Your task to perform on an android device: Search for vegetarian restaurants on Maps Image 0: 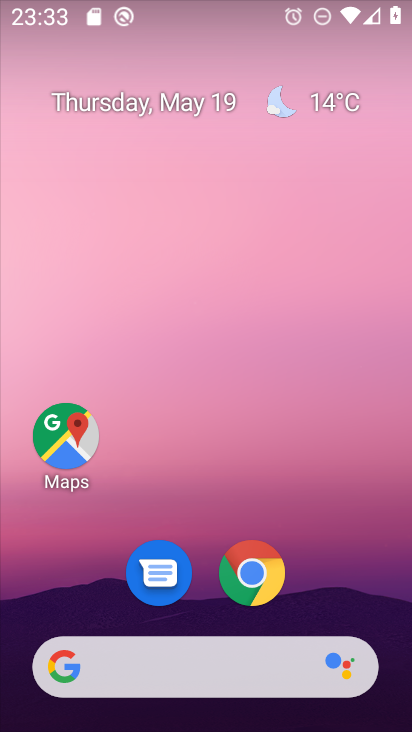
Step 0: drag from (348, 554) to (299, 111)
Your task to perform on an android device: Search for vegetarian restaurants on Maps Image 1: 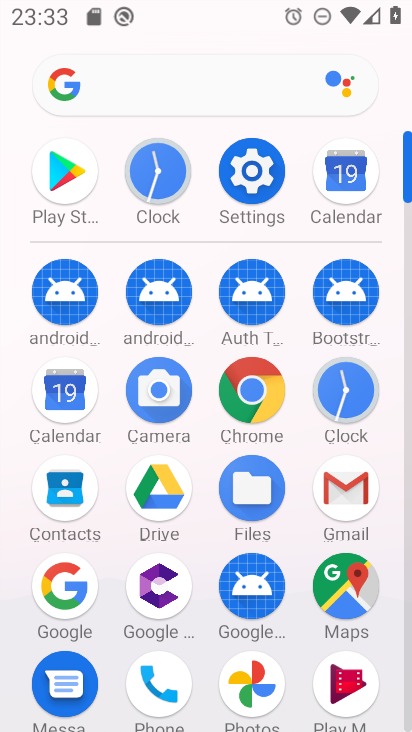
Step 1: drag from (283, 630) to (278, 190)
Your task to perform on an android device: Search for vegetarian restaurants on Maps Image 2: 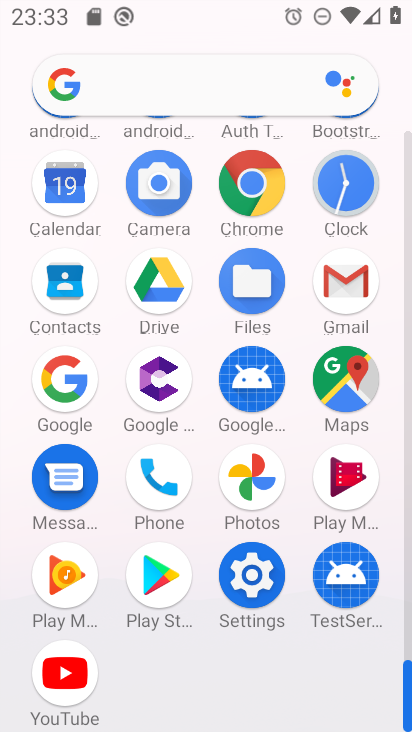
Step 2: click (356, 393)
Your task to perform on an android device: Search for vegetarian restaurants on Maps Image 3: 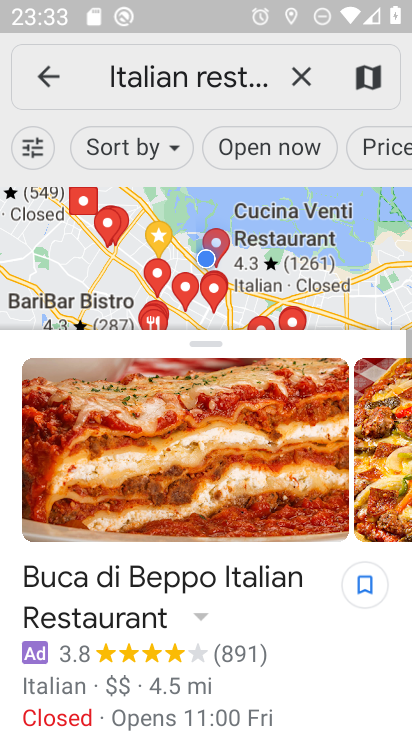
Step 3: click (217, 82)
Your task to perform on an android device: Search for vegetarian restaurants on Maps Image 4: 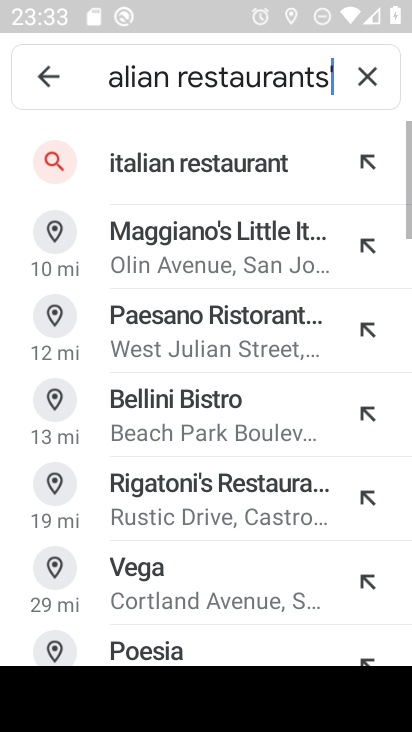
Step 4: click (367, 71)
Your task to perform on an android device: Search for vegetarian restaurants on Maps Image 5: 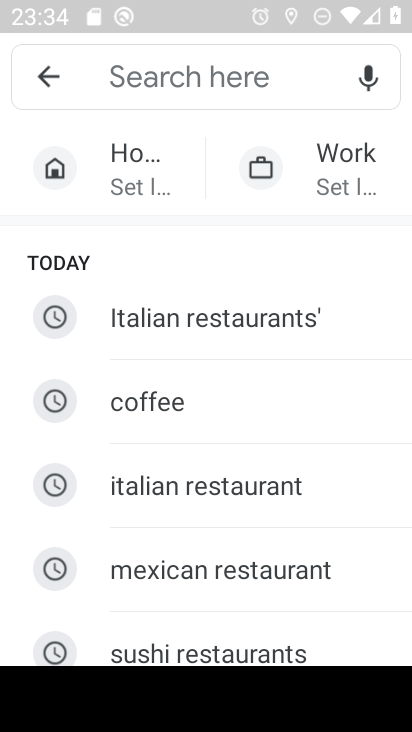
Step 5: type "vegetarian restaurants"
Your task to perform on an android device: Search for vegetarian restaurants on Maps Image 6: 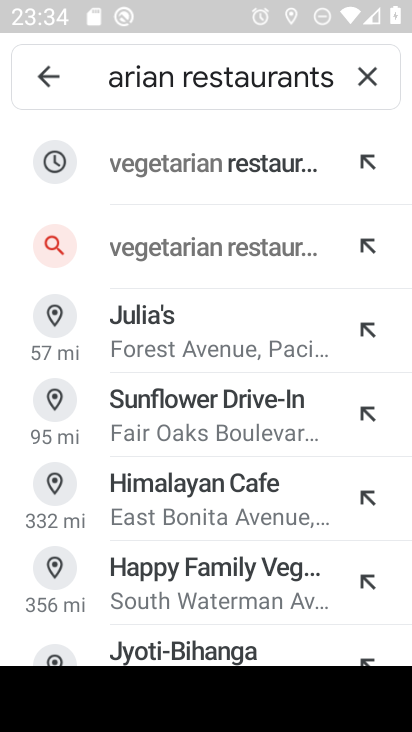
Step 6: press enter
Your task to perform on an android device: Search for vegetarian restaurants on Maps Image 7: 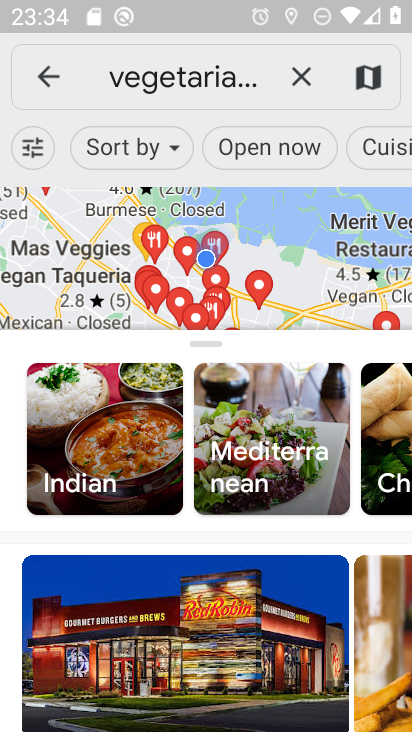
Step 7: task complete